Your task to perform on an android device: turn on wifi Image 0: 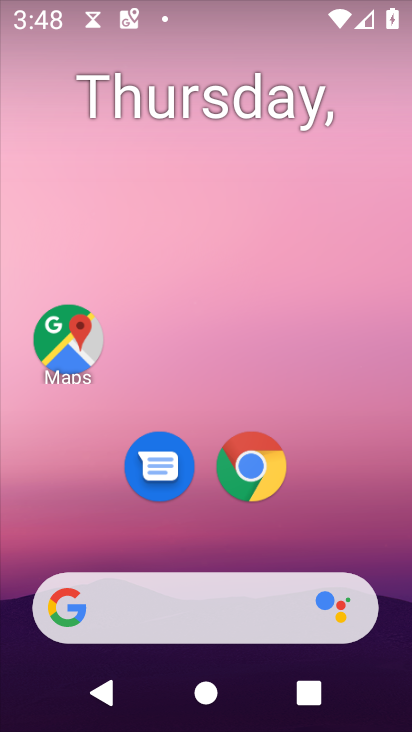
Step 0: drag from (324, 622) to (408, 129)
Your task to perform on an android device: turn on wifi Image 1: 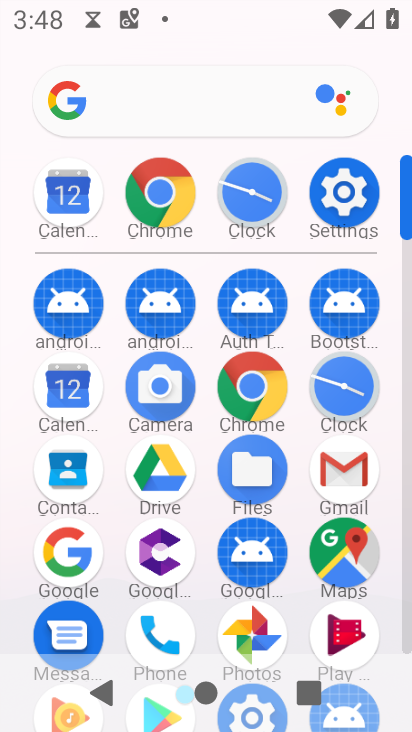
Step 1: click (359, 191)
Your task to perform on an android device: turn on wifi Image 2: 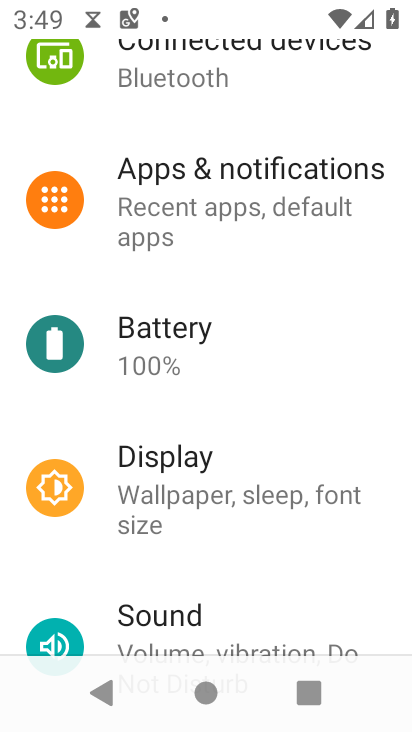
Step 2: drag from (131, 116) to (152, 653)
Your task to perform on an android device: turn on wifi Image 3: 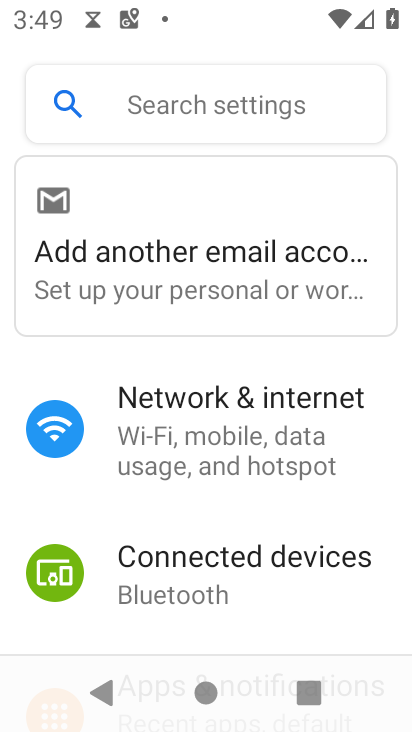
Step 3: click (221, 337)
Your task to perform on an android device: turn on wifi Image 4: 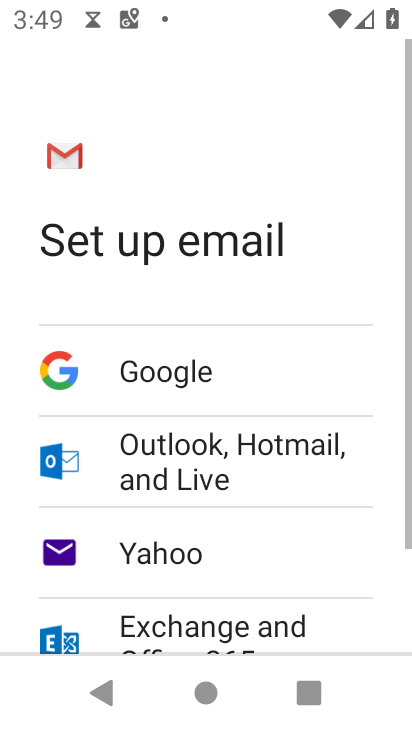
Step 4: press home button
Your task to perform on an android device: turn on wifi Image 5: 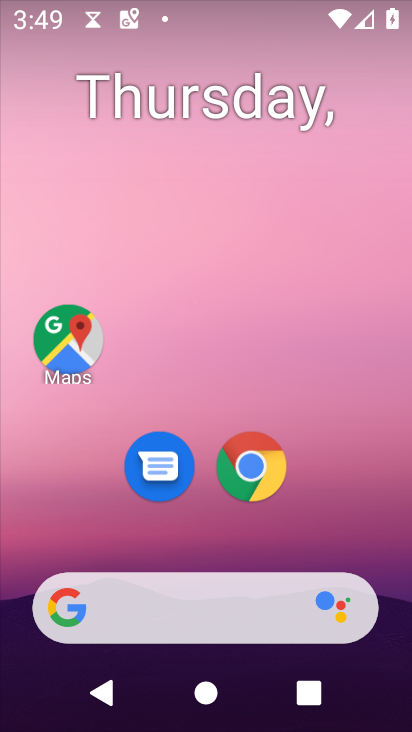
Step 5: drag from (230, 614) to (326, 17)
Your task to perform on an android device: turn on wifi Image 6: 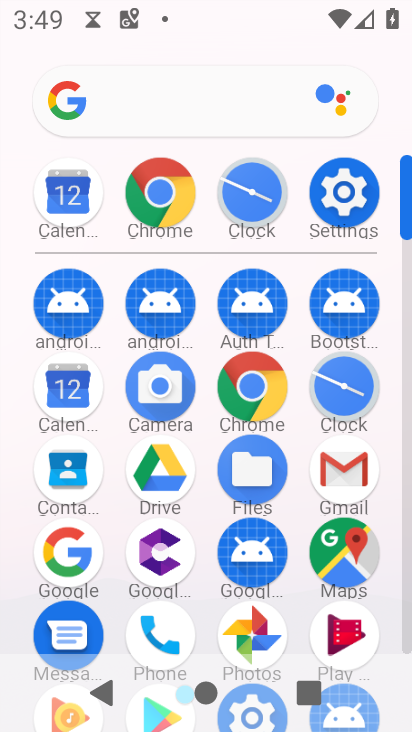
Step 6: click (337, 198)
Your task to perform on an android device: turn on wifi Image 7: 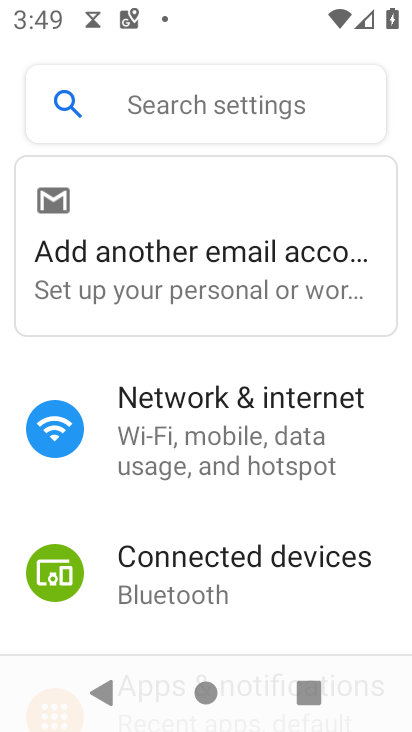
Step 7: drag from (217, 561) to (282, 66)
Your task to perform on an android device: turn on wifi Image 8: 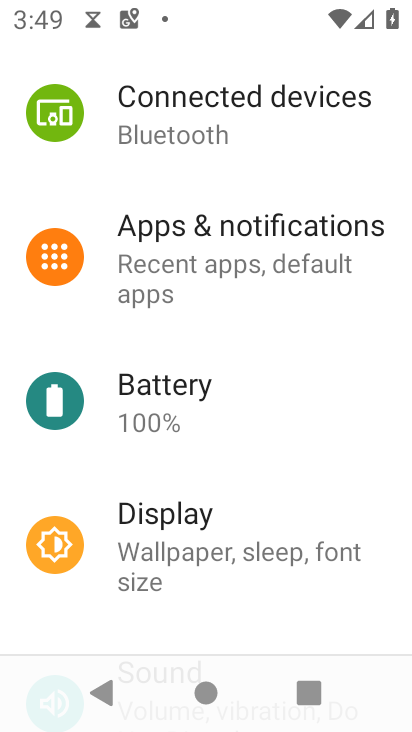
Step 8: drag from (253, 218) to (208, 604)
Your task to perform on an android device: turn on wifi Image 9: 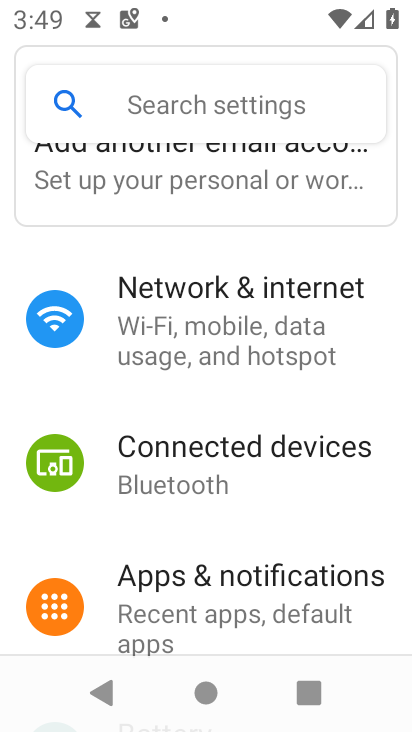
Step 9: click (248, 325)
Your task to perform on an android device: turn on wifi Image 10: 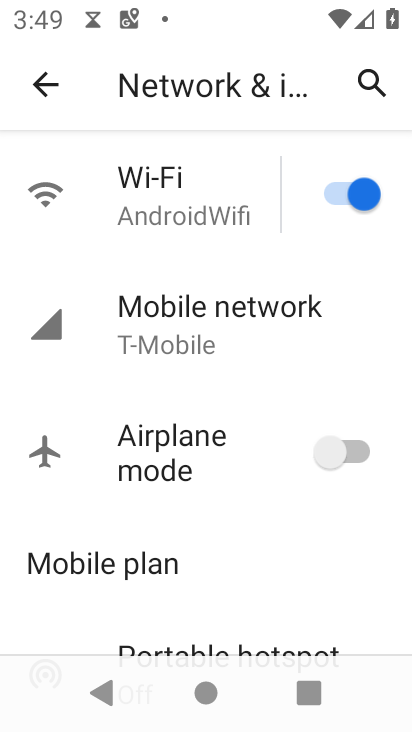
Step 10: task complete